Your task to perform on an android device: Go to Amazon Image 0: 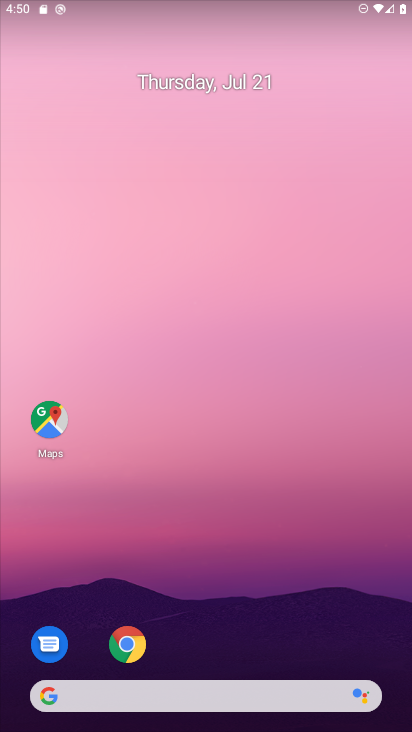
Step 0: click (127, 648)
Your task to perform on an android device: Go to Amazon Image 1: 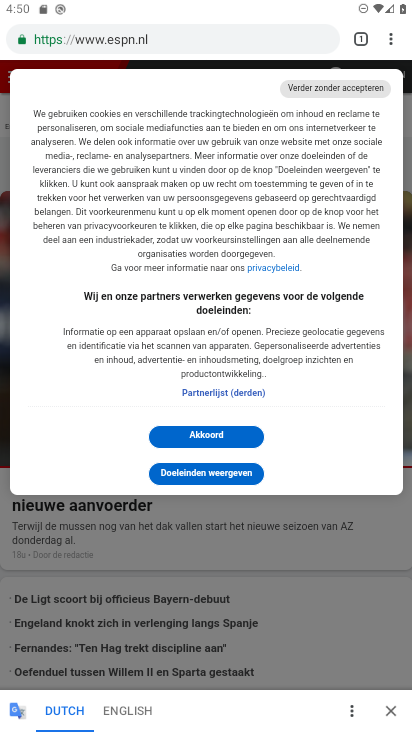
Step 1: click (131, 21)
Your task to perform on an android device: Go to Amazon Image 2: 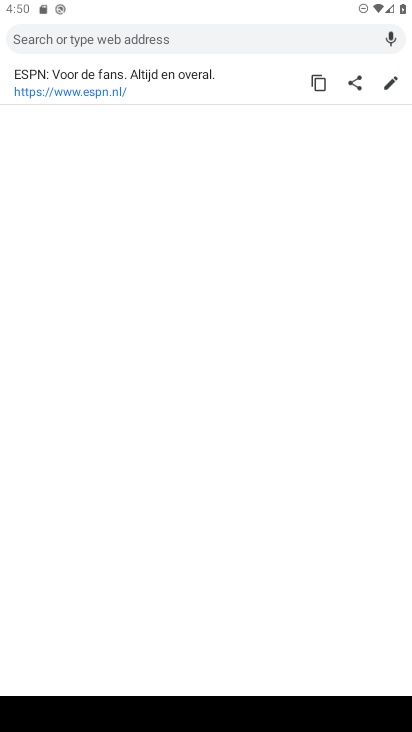
Step 2: type "www.amazon.com"
Your task to perform on an android device: Go to Amazon Image 3: 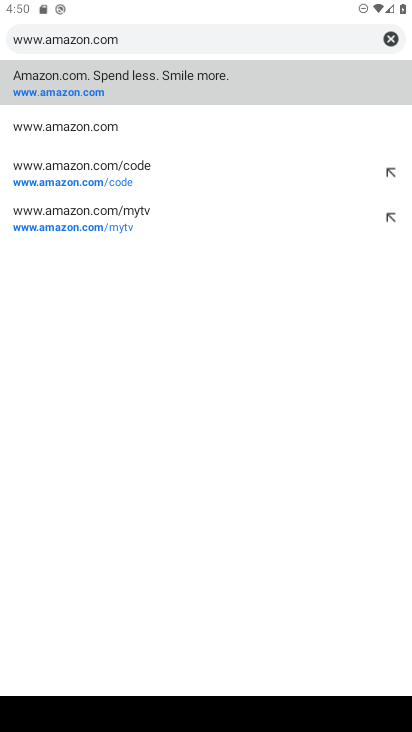
Step 3: click (87, 89)
Your task to perform on an android device: Go to Amazon Image 4: 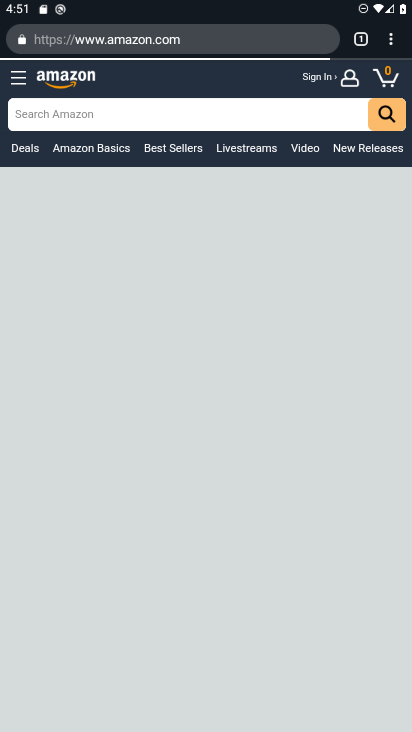
Step 4: task complete